Your task to perform on an android device: Open the calendar and show me this week's events Image 0: 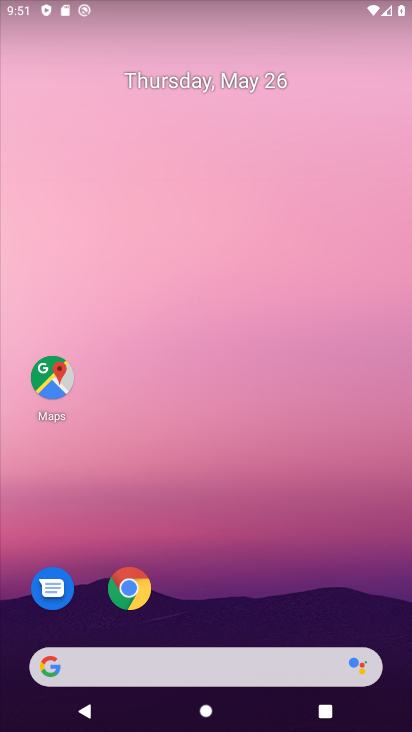
Step 0: drag from (231, 726) to (144, 33)
Your task to perform on an android device: Open the calendar and show me this week's events Image 1: 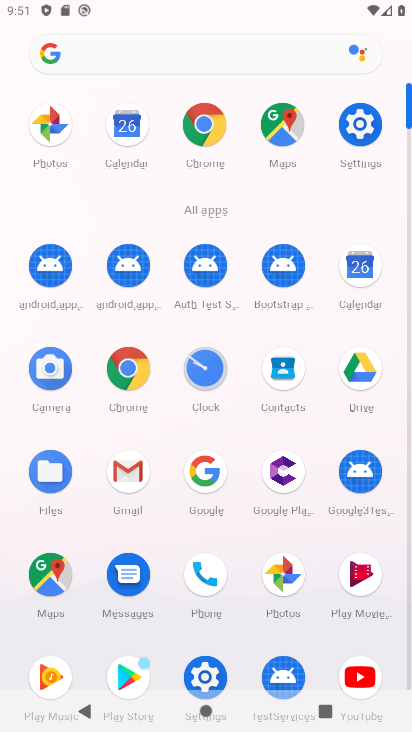
Step 1: click (356, 265)
Your task to perform on an android device: Open the calendar and show me this week's events Image 2: 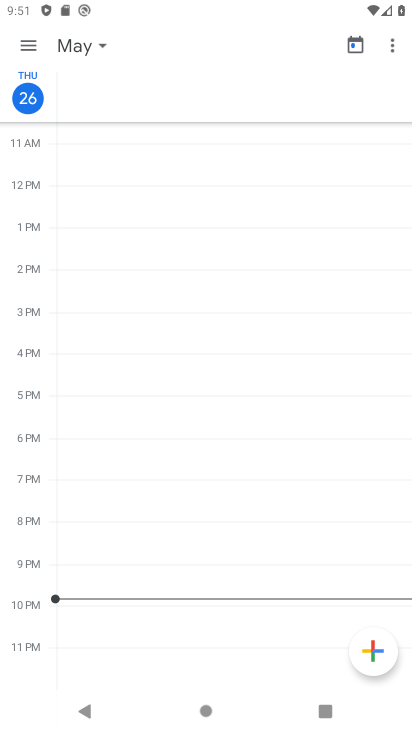
Step 2: click (24, 43)
Your task to perform on an android device: Open the calendar and show me this week's events Image 3: 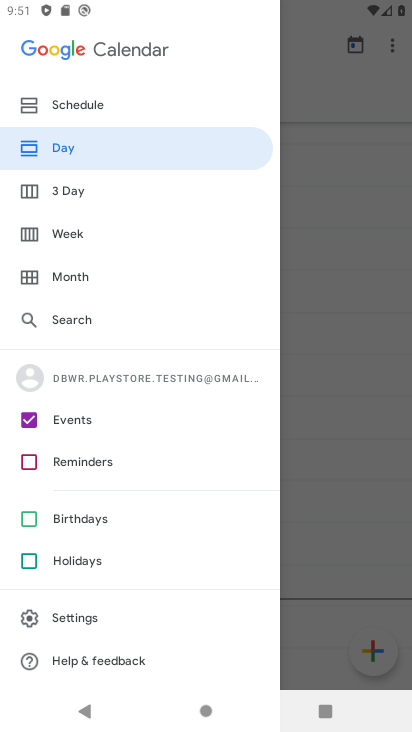
Step 3: click (71, 233)
Your task to perform on an android device: Open the calendar and show me this week's events Image 4: 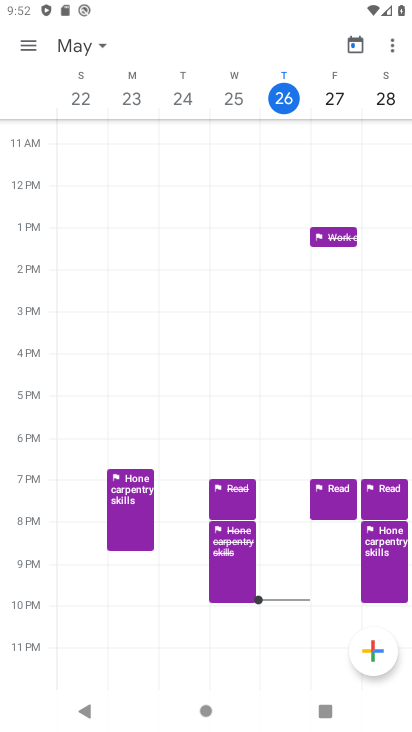
Step 4: task complete